Your task to perform on an android device: Do I have any events tomorrow? Image 0: 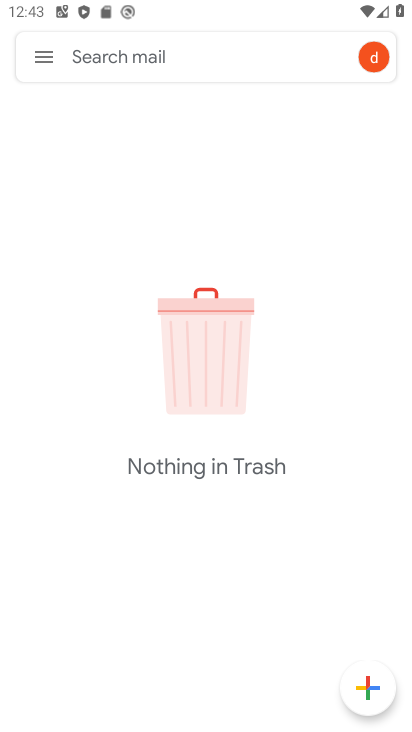
Step 0: press home button
Your task to perform on an android device: Do I have any events tomorrow? Image 1: 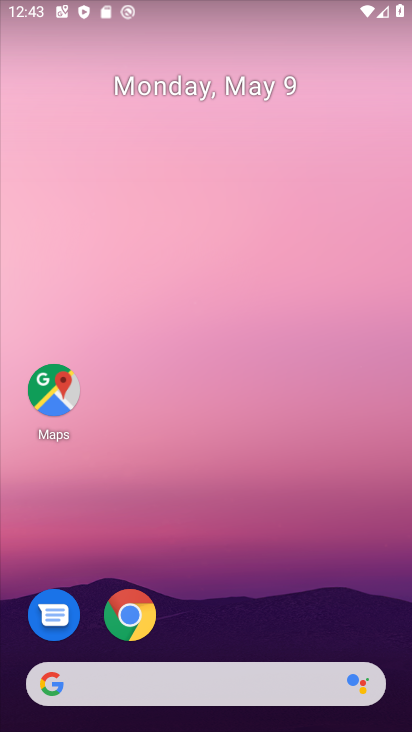
Step 1: drag from (229, 616) to (253, 146)
Your task to perform on an android device: Do I have any events tomorrow? Image 2: 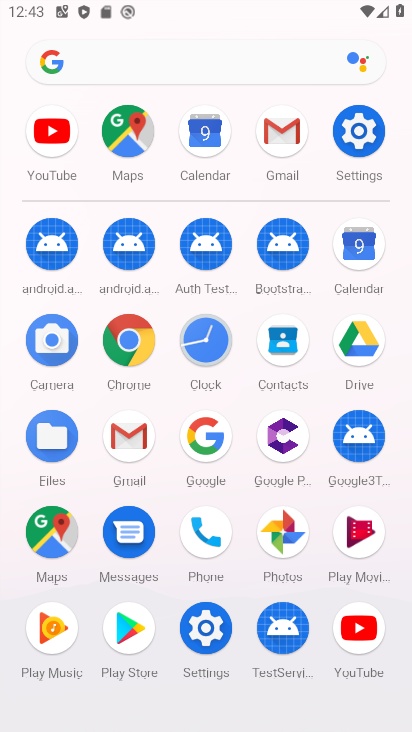
Step 2: click (362, 243)
Your task to perform on an android device: Do I have any events tomorrow? Image 3: 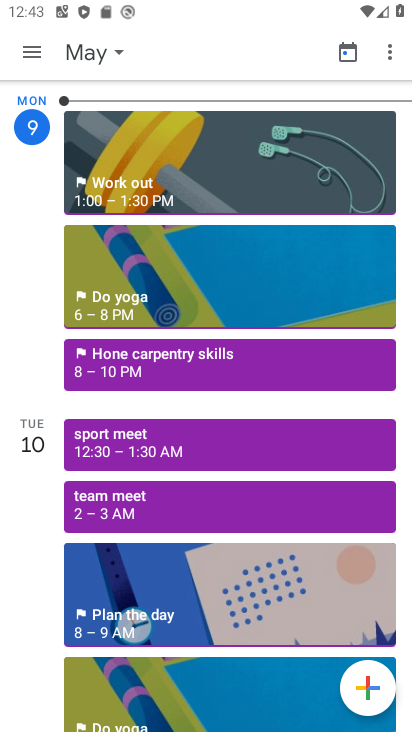
Step 3: click (120, 52)
Your task to perform on an android device: Do I have any events tomorrow? Image 4: 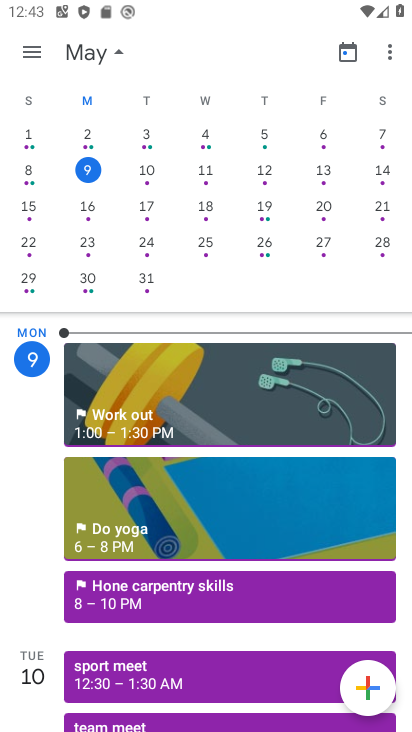
Step 4: click (149, 173)
Your task to perform on an android device: Do I have any events tomorrow? Image 5: 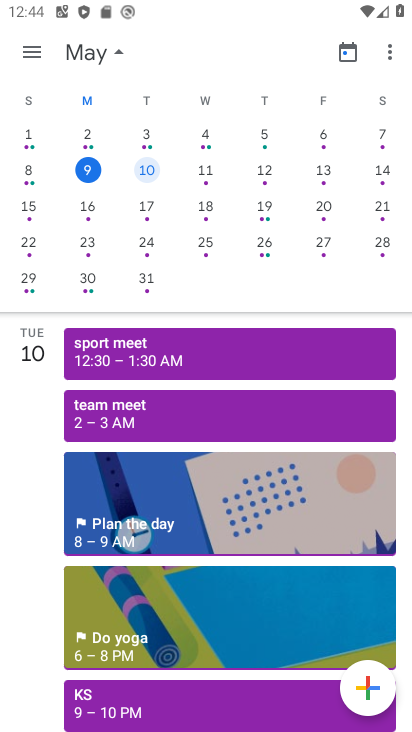
Step 5: click (121, 50)
Your task to perform on an android device: Do I have any events tomorrow? Image 6: 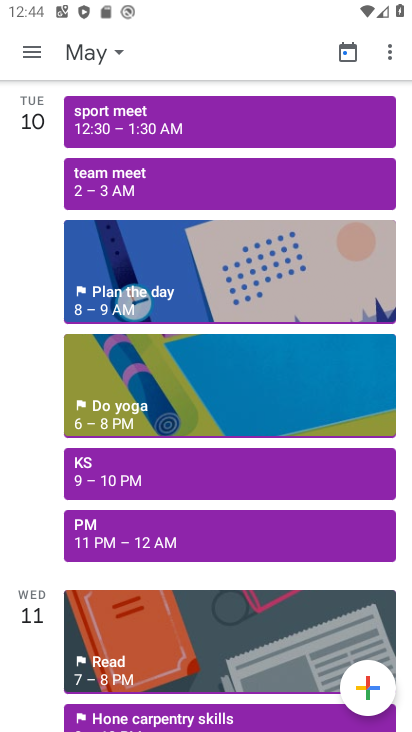
Step 6: task complete